Your task to perform on an android device: Go to settings Image 0: 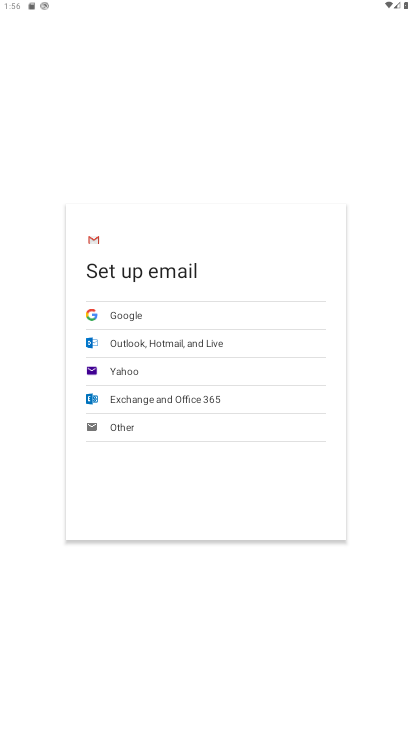
Step 0: press home button
Your task to perform on an android device: Go to settings Image 1: 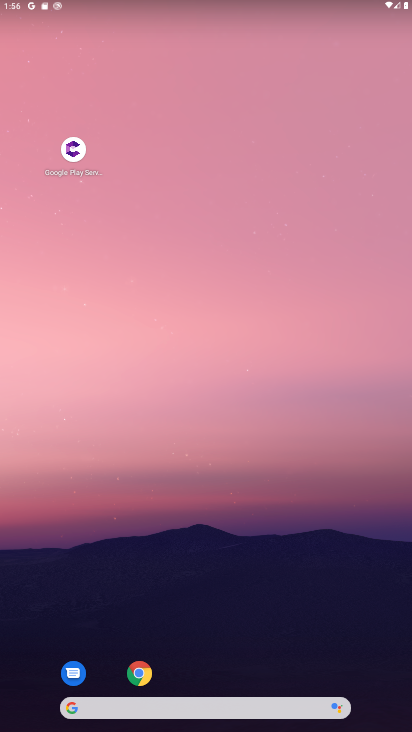
Step 1: drag from (182, 412) to (147, 22)
Your task to perform on an android device: Go to settings Image 2: 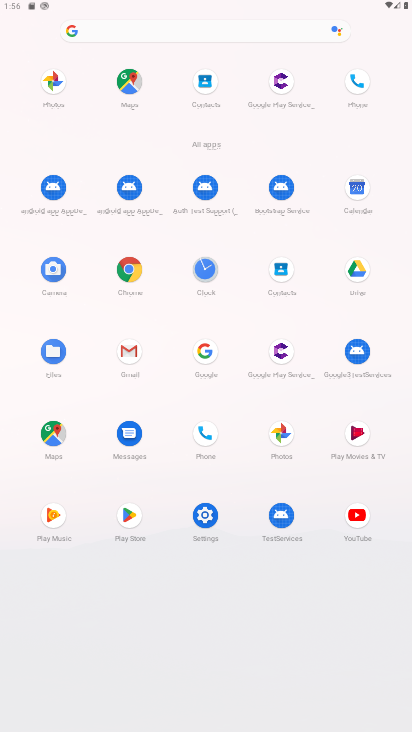
Step 2: click (201, 511)
Your task to perform on an android device: Go to settings Image 3: 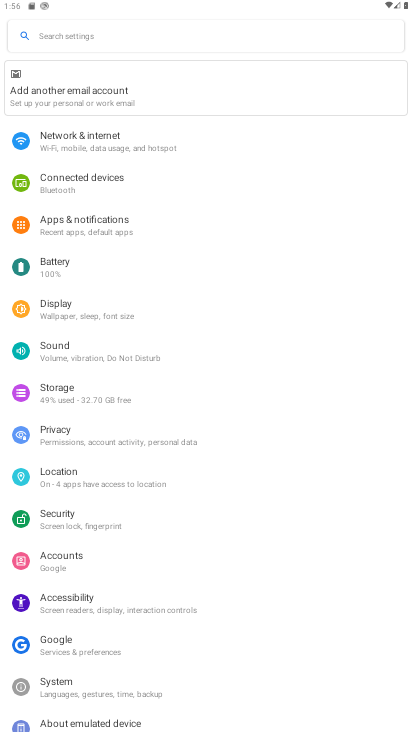
Step 3: task complete